Your task to perform on an android device: Search for pizza restaurants on Maps Image 0: 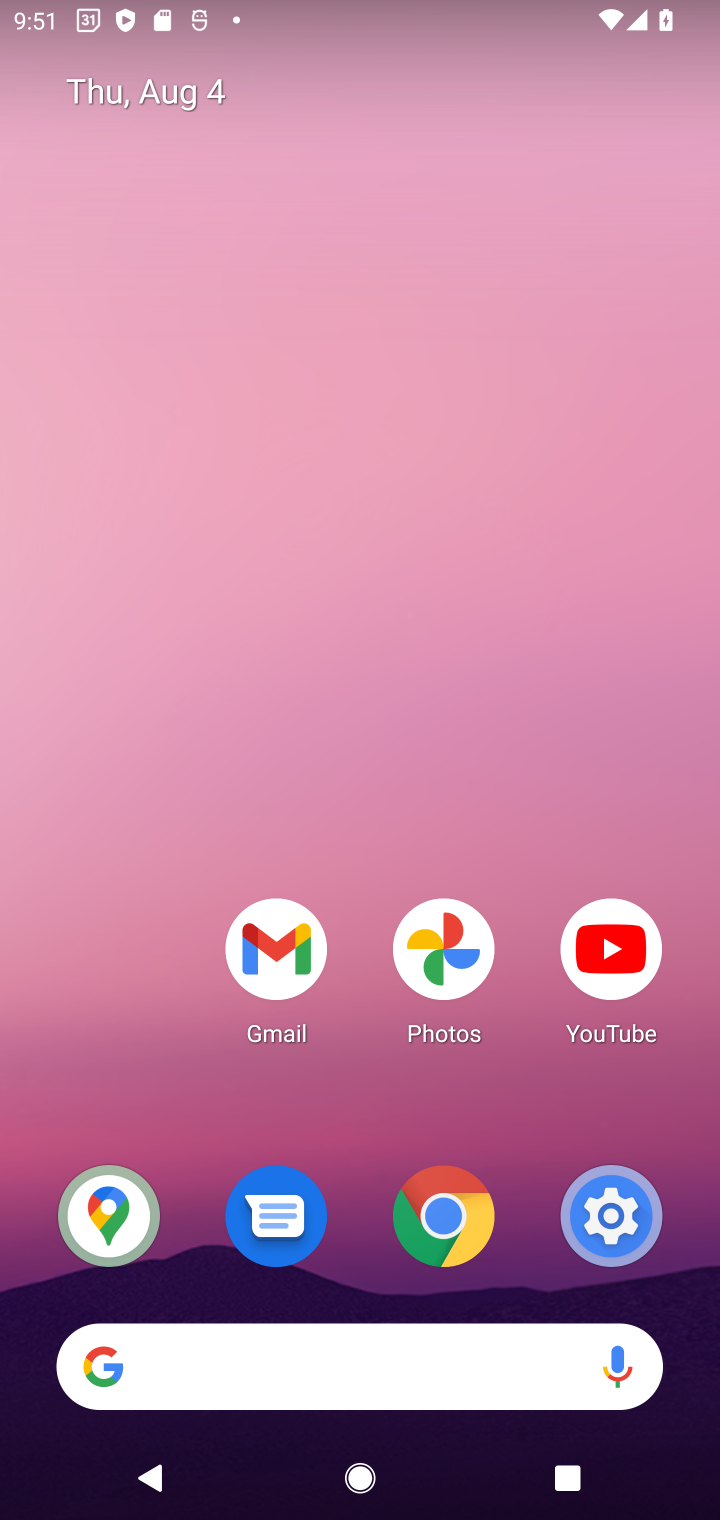
Step 0: drag from (273, 1357) to (350, 352)
Your task to perform on an android device: Search for pizza restaurants on Maps Image 1: 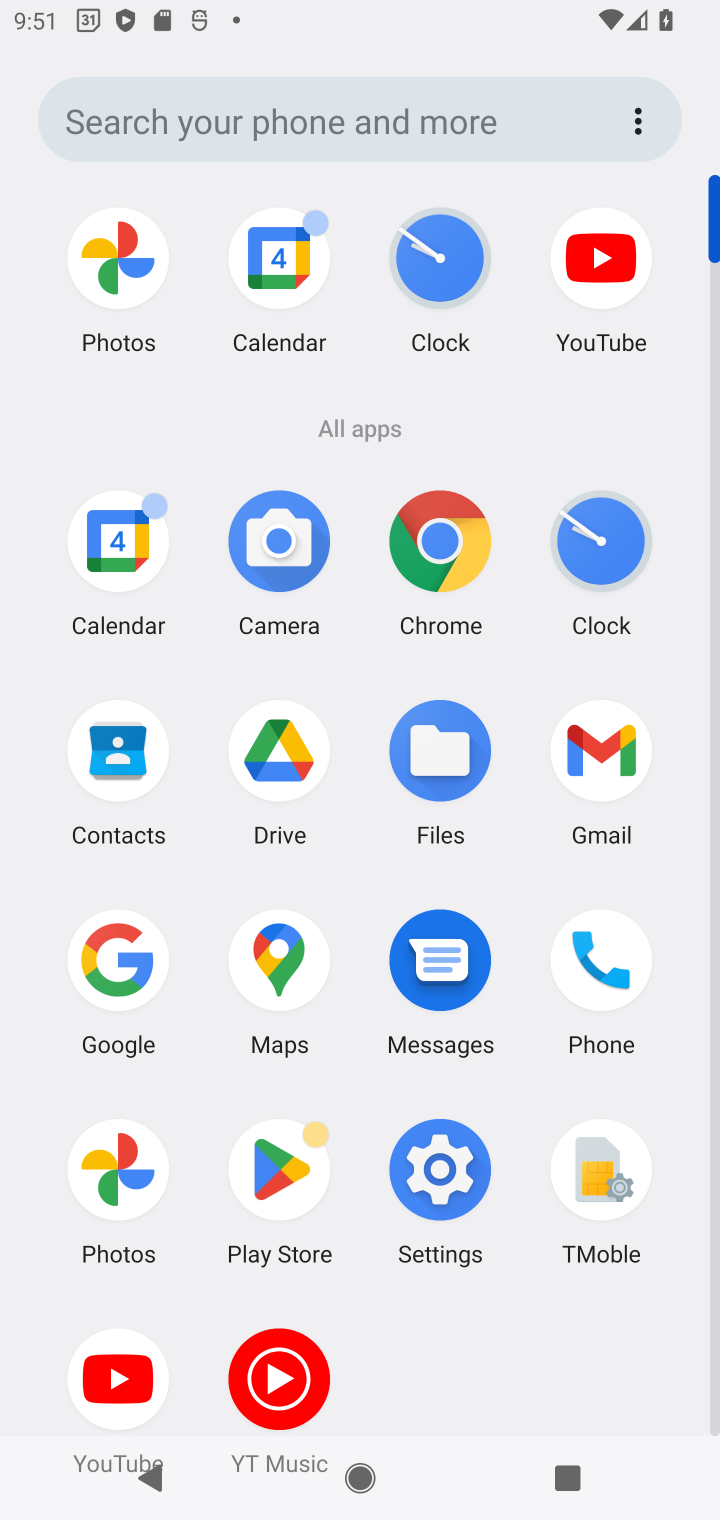
Step 1: click (277, 944)
Your task to perform on an android device: Search for pizza restaurants on Maps Image 2: 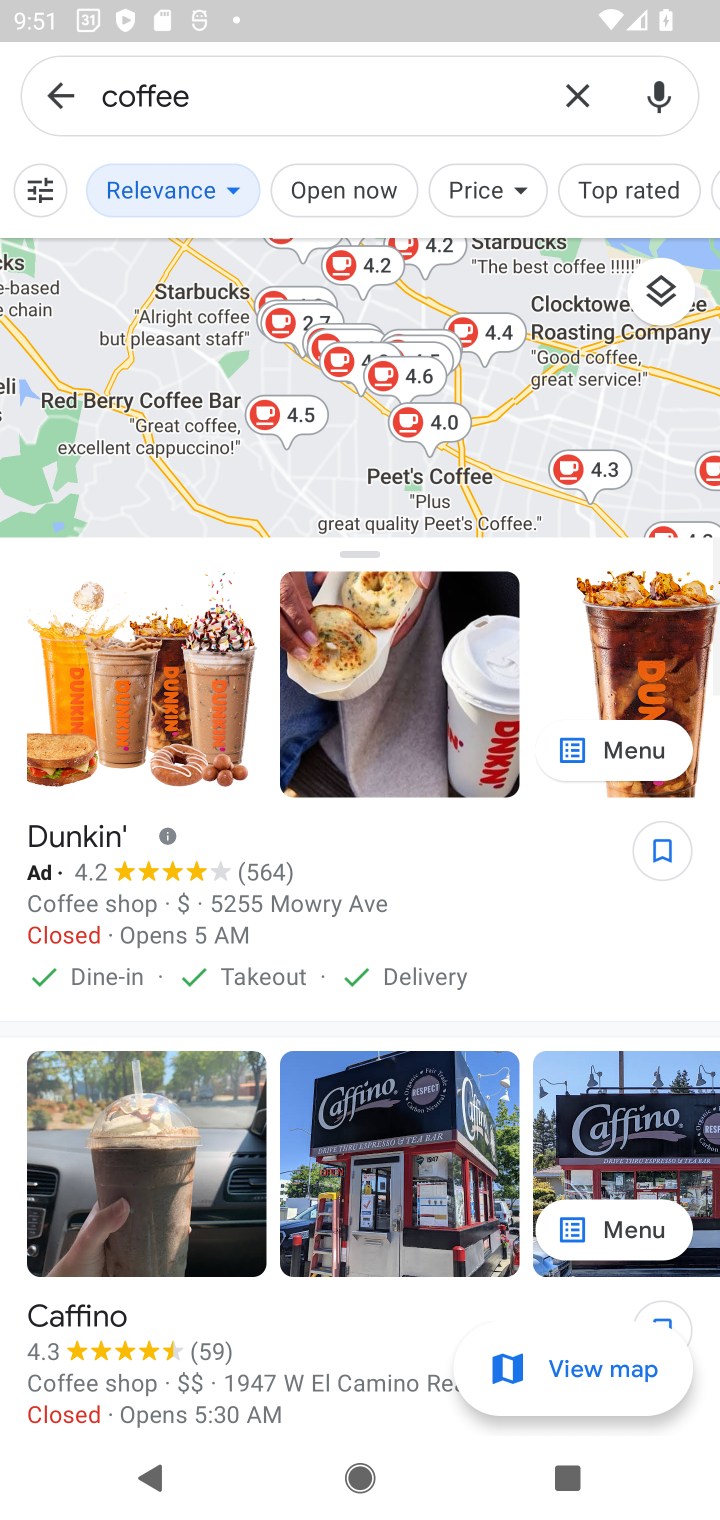
Step 2: click (579, 92)
Your task to perform on an android device: Search for pizza restaurants on Maps Image 3: 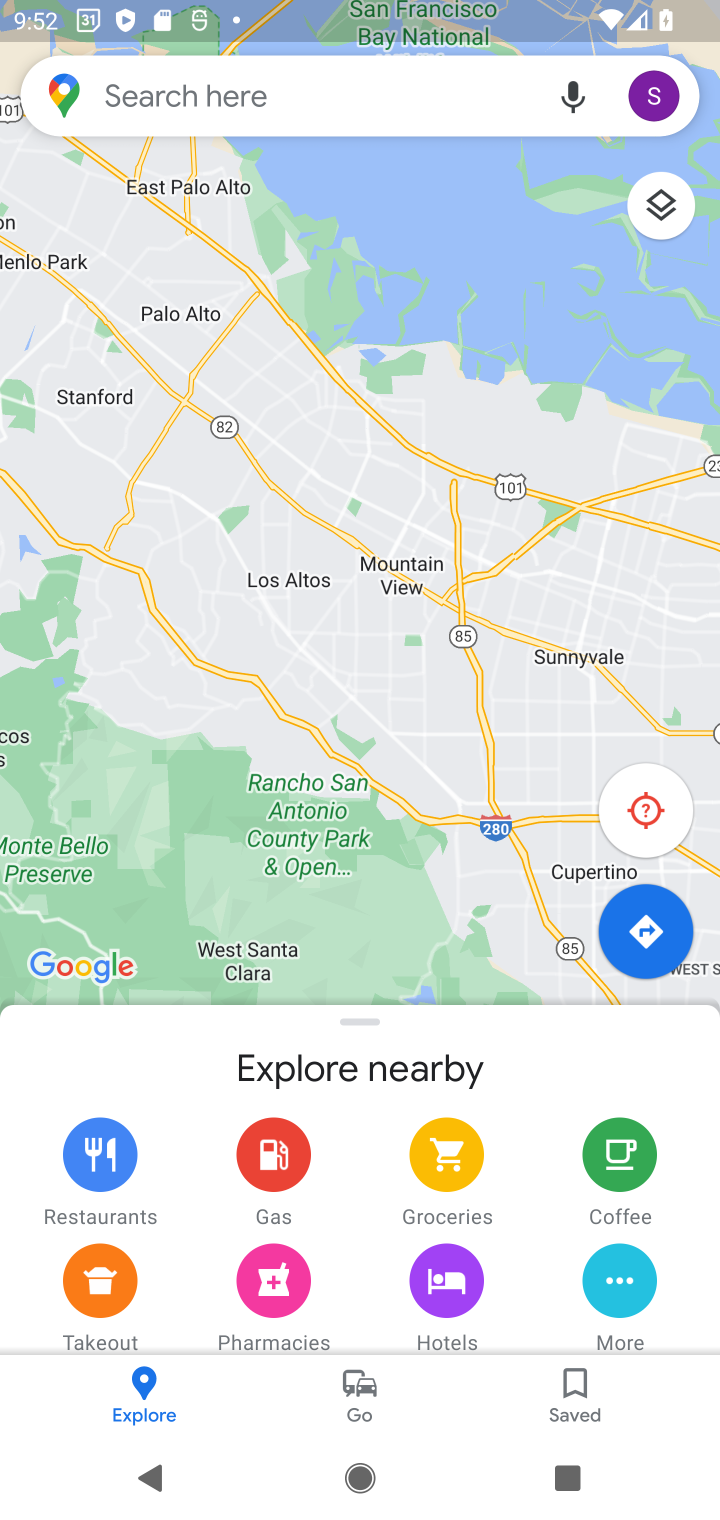
Step 3: click (295, 86)
Your task to perform on an android device: Search for pizza restaurants on Maps Image 4: 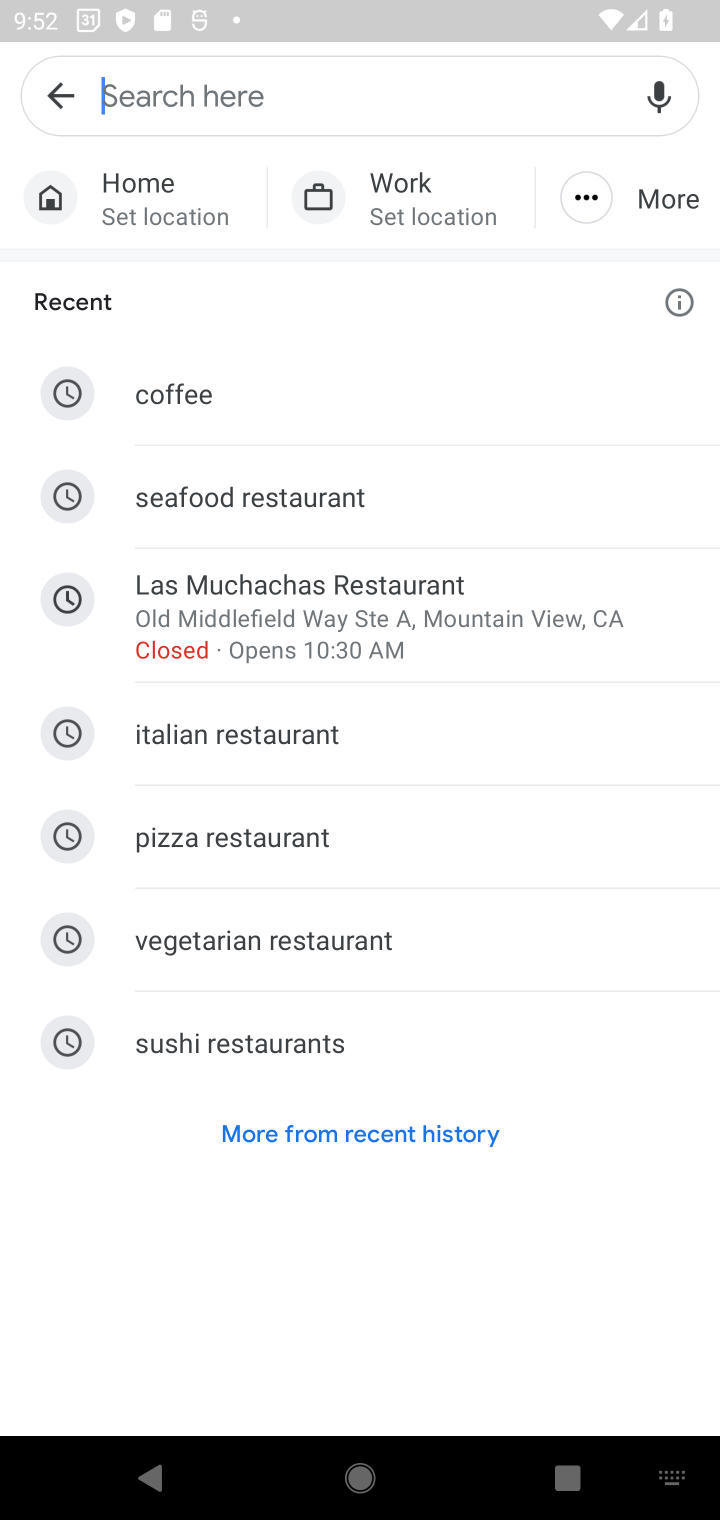
Step 4: type "pizza restaurants"
Your task to perform on an android device: Search for pizza restaurants on Maps Image 5: 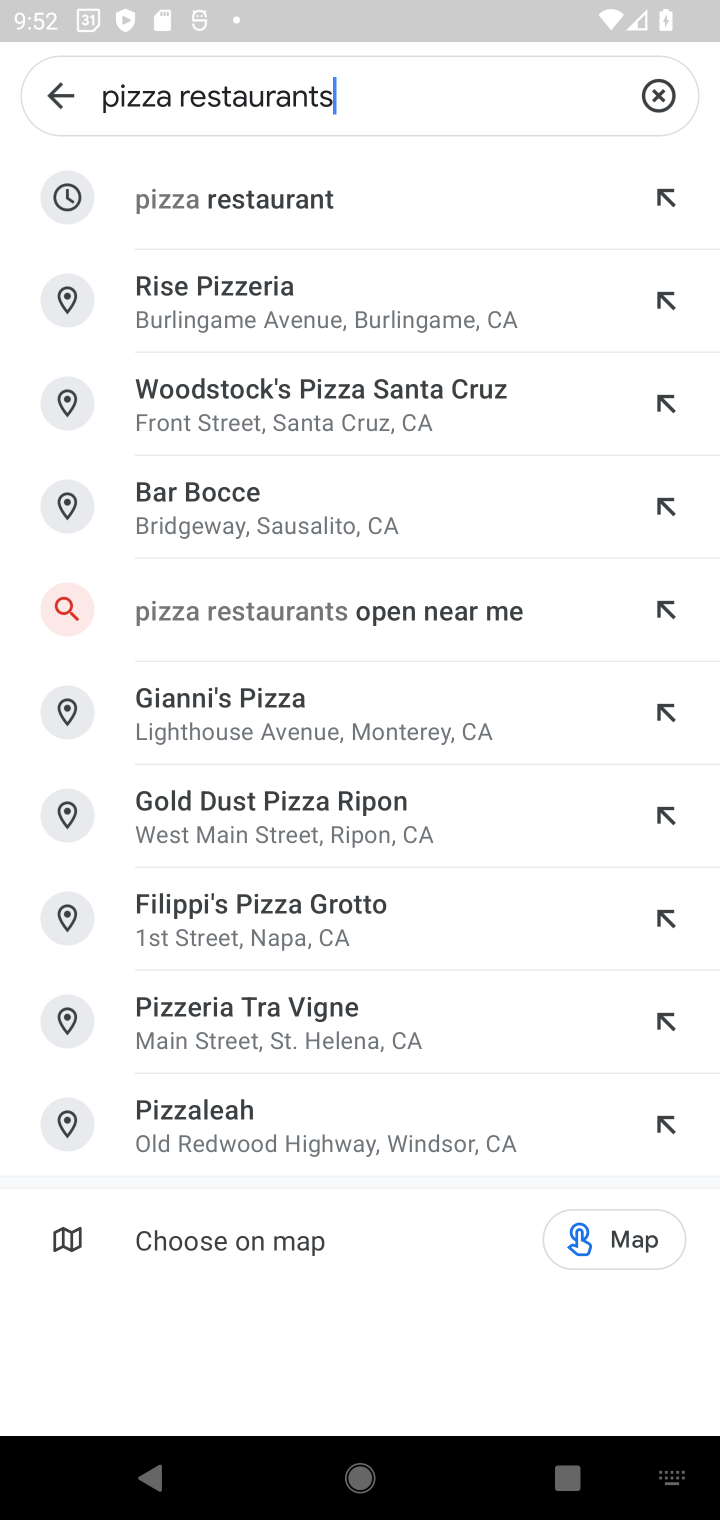
Step 5: click (298, 185)
Your task to perform on an android device: Search for pizza restaurants on Maps Image 6: 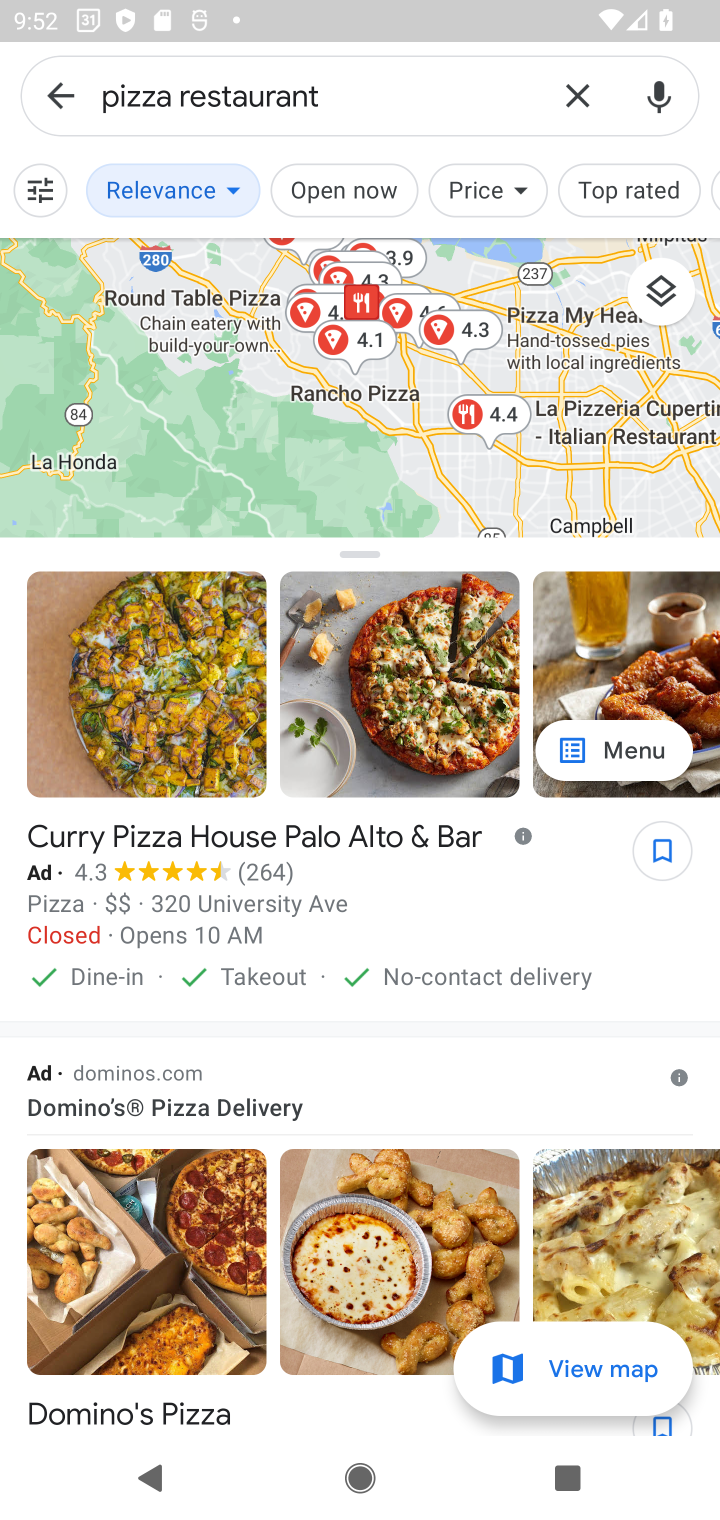
Step 6: task complete